Your task to perform on an android device: turn off improve location accuracy Image 0: 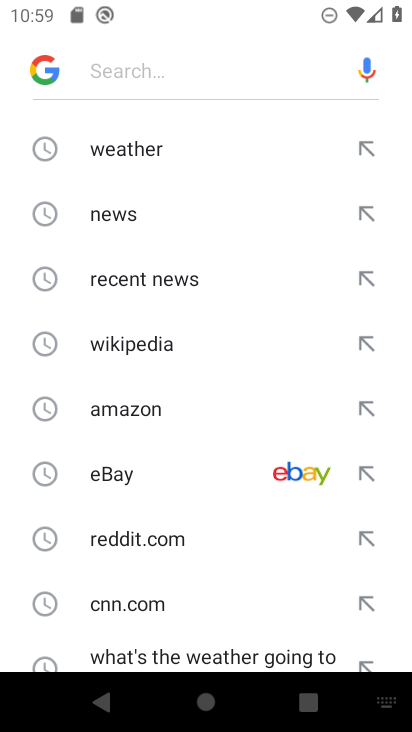
Step 0: press back button
Your task to perform on an android device: turn off improve location accuracy Image 1: 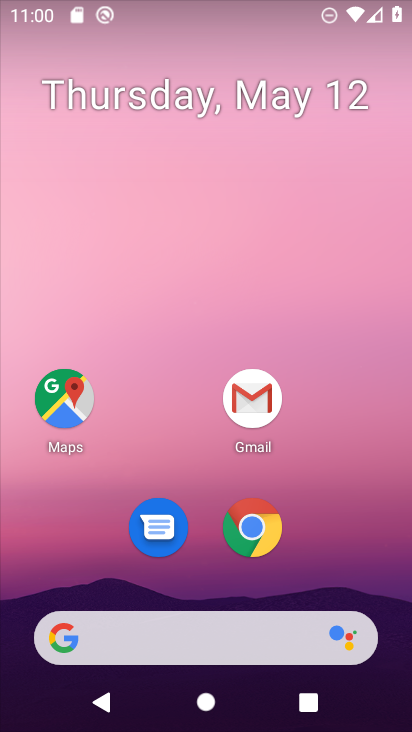
Step 1: drag from (329, 540) to (286, 129)
Your task to perform on an android device: turn off improve location accuracy Image 2: 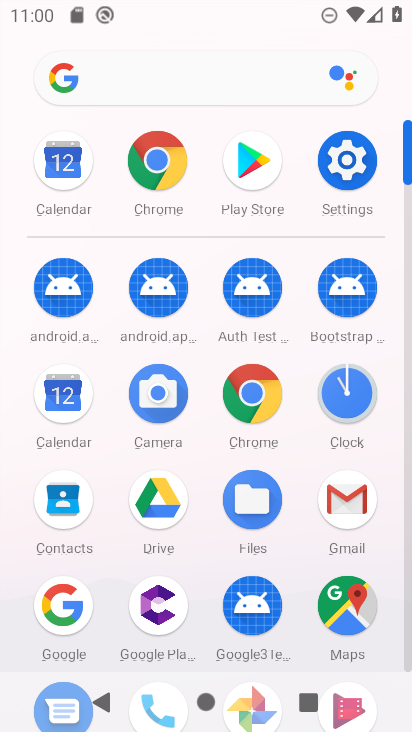
Step 2: drag from (349, 189) to (158, 426)
Your task to perform on an android device: turn off improve location accuracy Image 3: 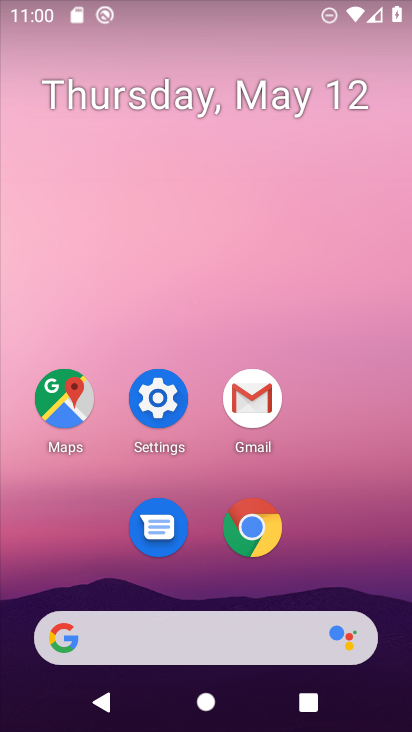
Step 3: click (161, 419)
Your task to perform on an android device: turn off improve location accuracy Image 4: 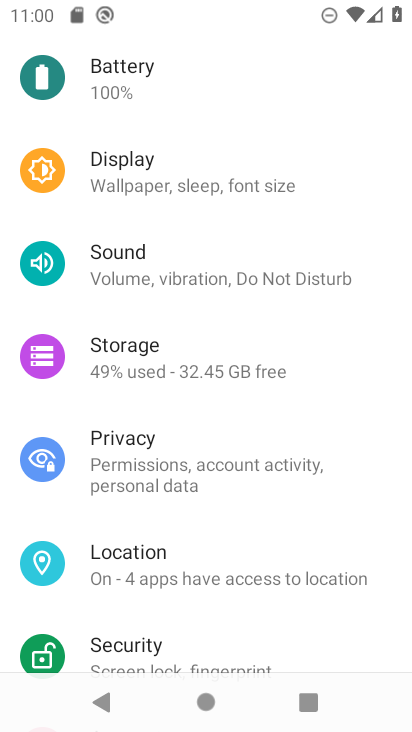
Step 4: drag from (156, 500) to (186, 382)
Your task to perform on an android device: turn off improve location accuracy Image 5: 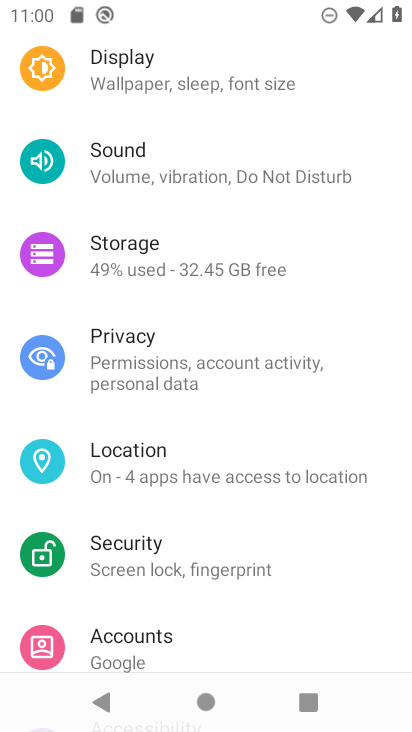
Step 5: click (186, 444)
Your task to perform on an android device: turn off improve location accuracy Image 6: 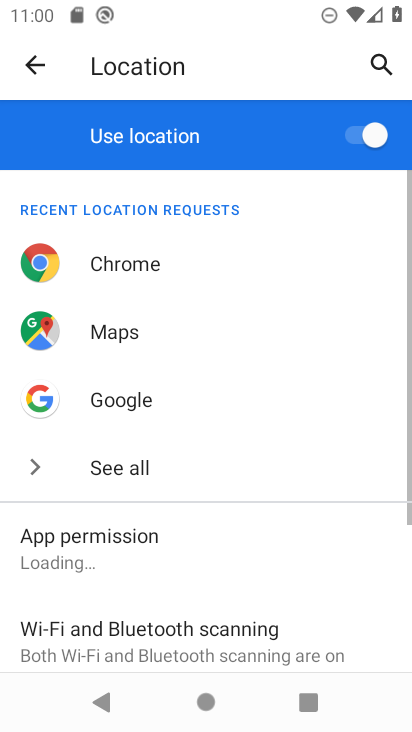
Step 6: drag from (196, 521) to (232, 271)
Your task to perform on an android device: turn off improve location accuracy Image 7: 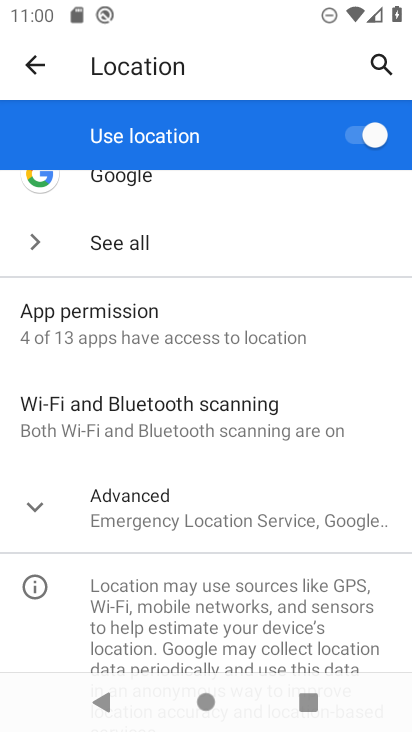
Step 7: click (224, 529)
Your task to perform on an android device: turn off improve location accuracy Image 8: 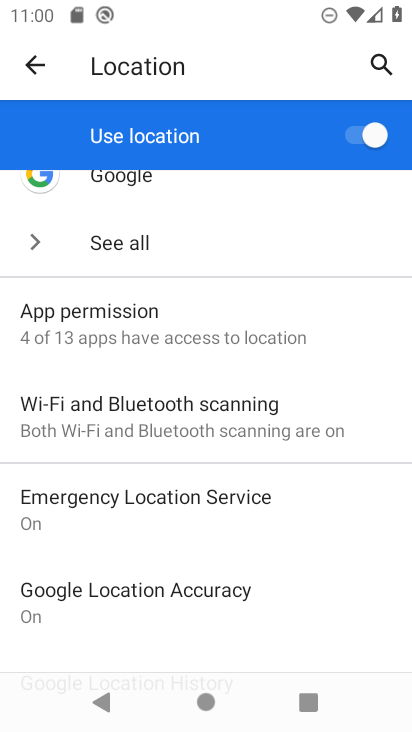
Step 8: drag from (224, 529) to (288, 258)
Your task to perform on an android device: turn off improve location accuracy Image 9: 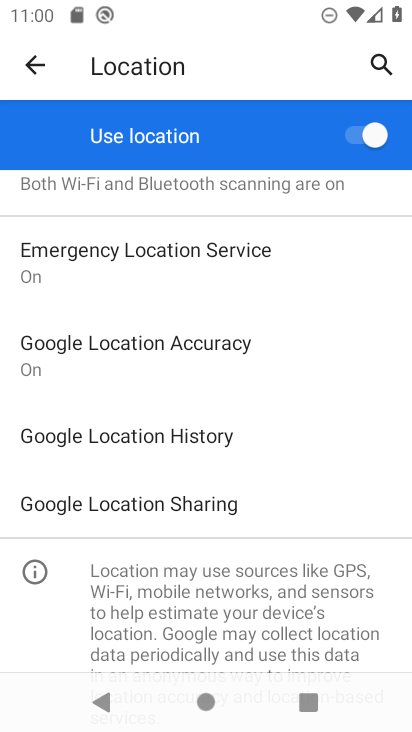
Step 9: click (303, 331)
Your task to perform on an android device: turn off improve location accuracy Image 10: 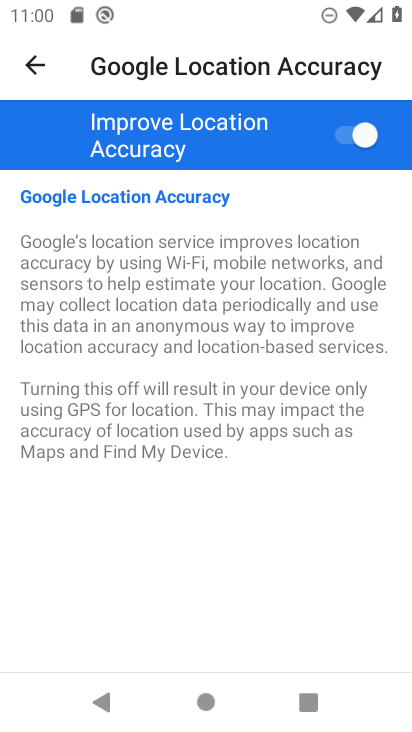
Step 10: click (353, 123)
Your task to perform on an android device: turn off improve location accuracy Image 11: 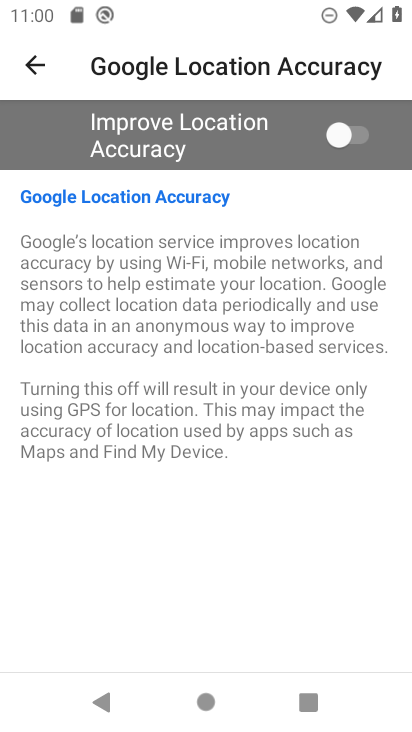
Step 11: task complete